Your task to perform on an android device: What's the weather today? Image 0: 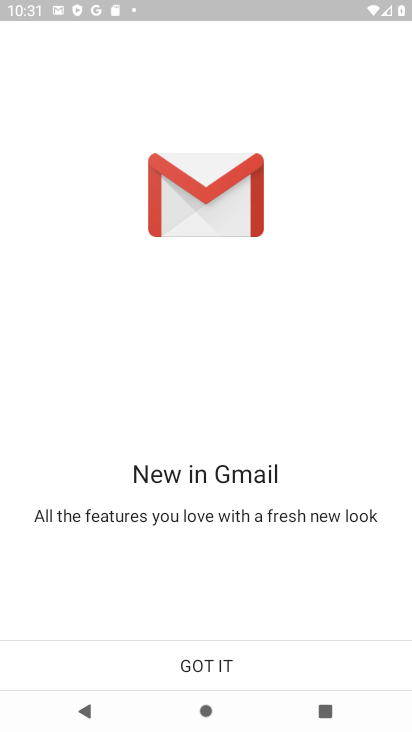
Step 0: press home button
Your task to perform on an android device: What's the weather today? Image 1: 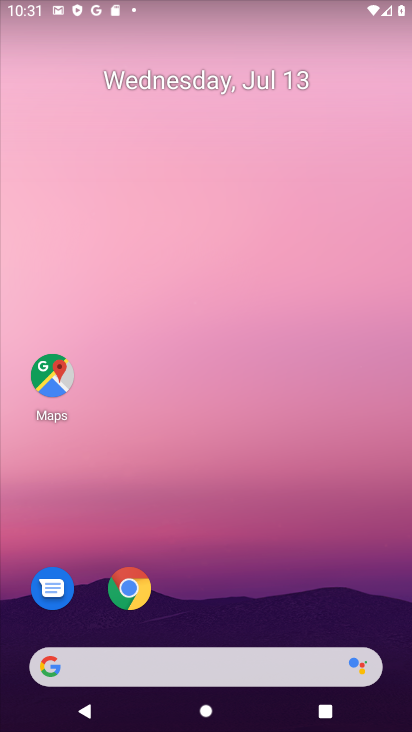
Step 1: click (187, 670)
Your task to perform on an android device: What's the weather today? Image 2: 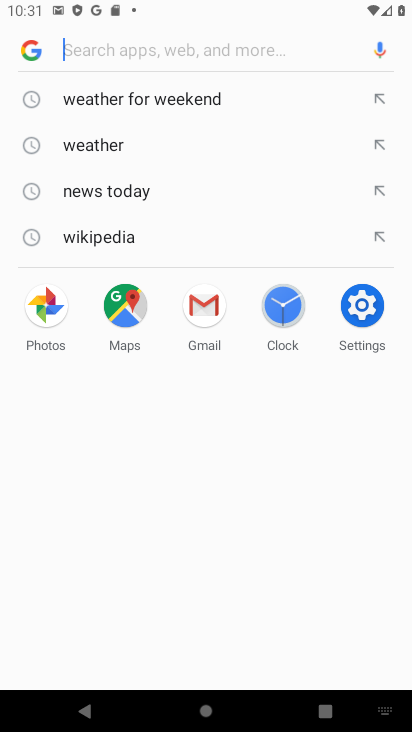
Step 2: click (119, 145)
Your task to perform on an android device: What's the weather today? Image 3: 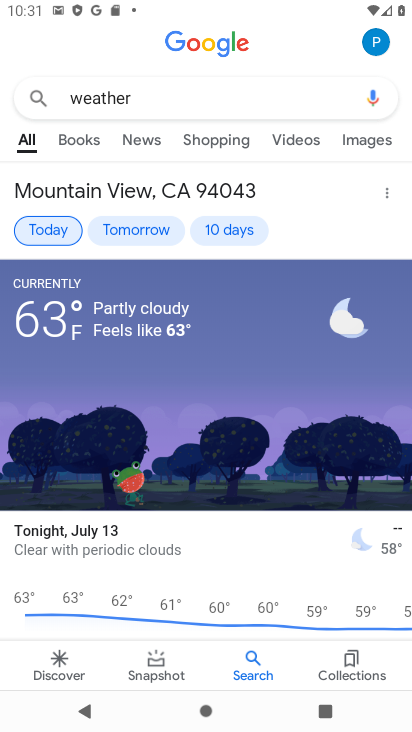
Step 3: task complete